Your task to perform on an android device: Open Youtube and go to the subscriptions tab Image 0: 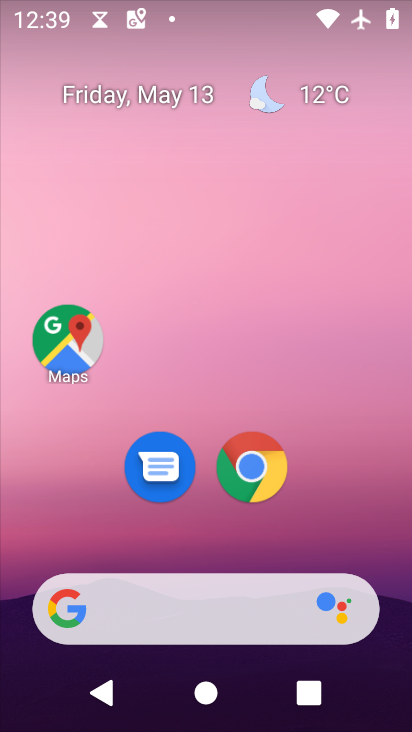
Step 0: drag from (250, 510) to (173, 34)
Your task to perform on an android device: Open Youtube and go to the subscriptions tab Image 1: 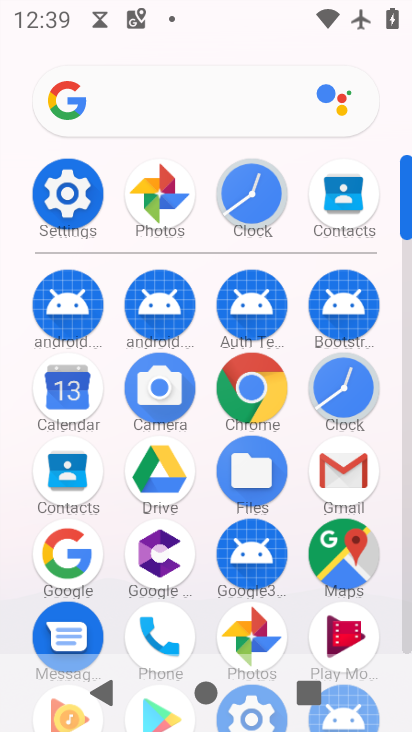
Step 1: drag from (203, 607) to (199, 296)
Your task to perform on an android device: Open Youtube and go to the subscriptions tab Image 2: 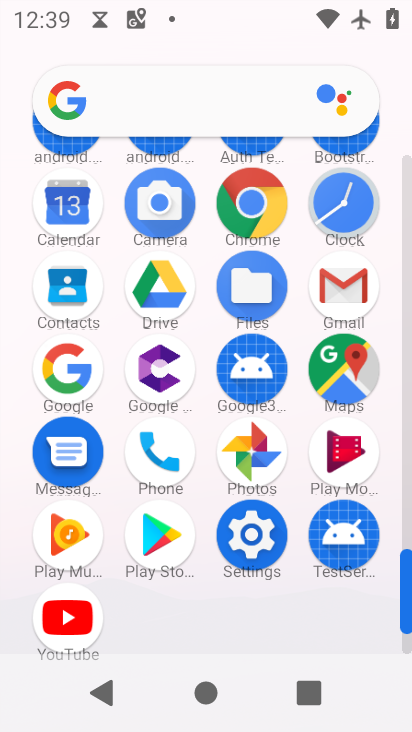
Step 2: click (75, 624)
Your task to perform on an android device: Open Youtube and go to the subscriptions tab Image 3: 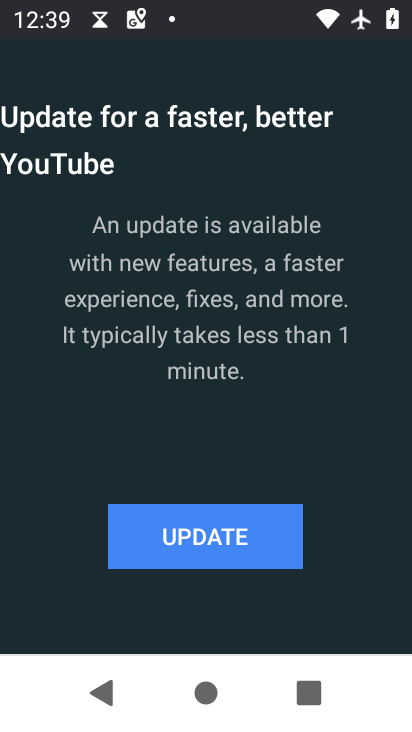
Step 3: click (231, 528)
Your task to perform on an android device: Open Youtube and go to the subscriptions tab Image 4: 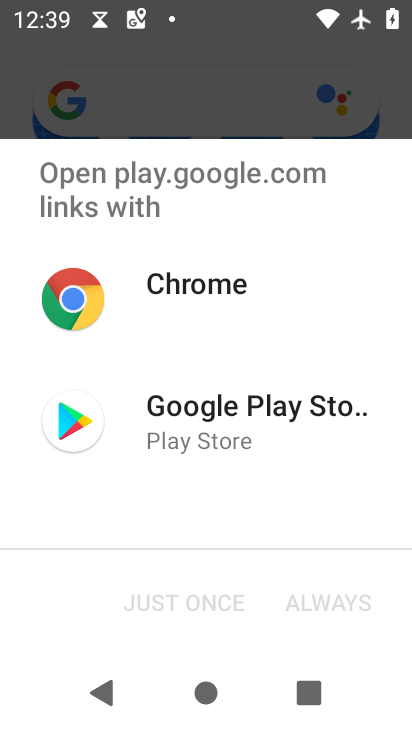
Step 4: click (194, 400)
Your task to perform on an android device: Open Youtube and go to the subscriptions tab Image 5: 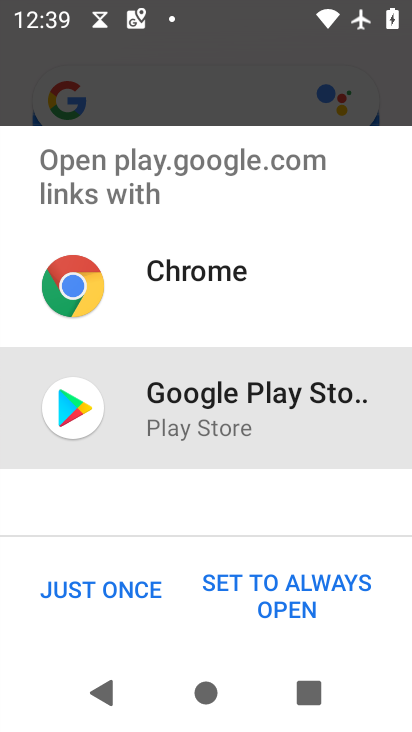
Step 5: click (117, 590)
Your task to perform on an android device: Open Youtube and go to the subscriptions tab Image 6: 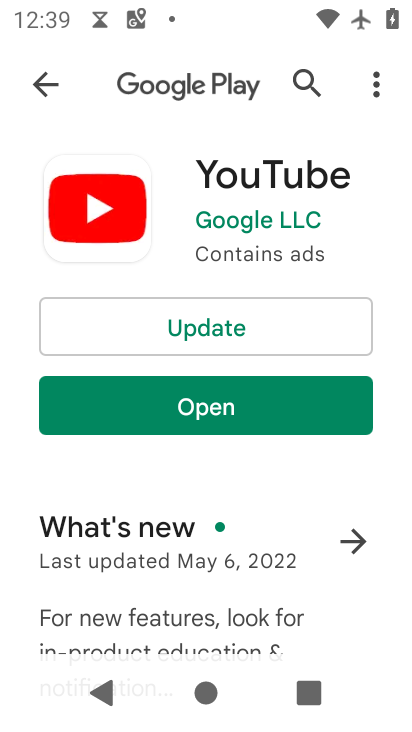
Step 6: click (250, 322)
Your task to perform on an android device: Open Youtube and go to the subscriptions tab Image 7: 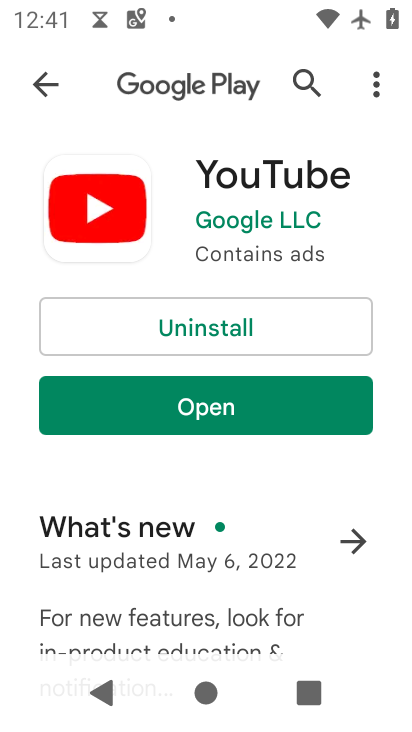
Step 7: click (307, 420)
Your task to perform on an android device: Open Youtube and go to the subscriptions tab Image 8: 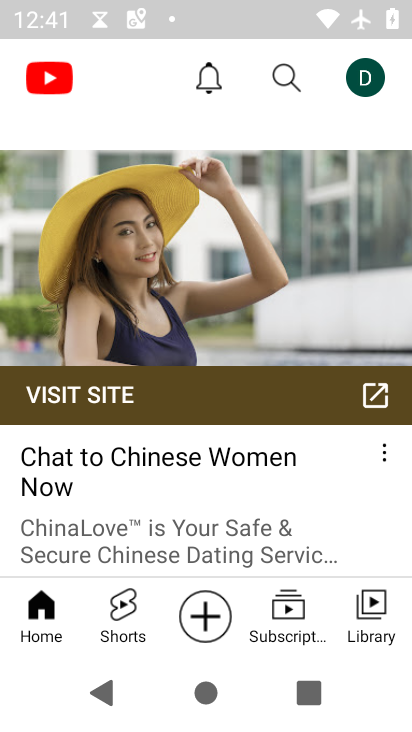
Step 8: click (278, 602)
Your task to perform on an android device: Open Youtube and go to the subscriptions tab Image 9: 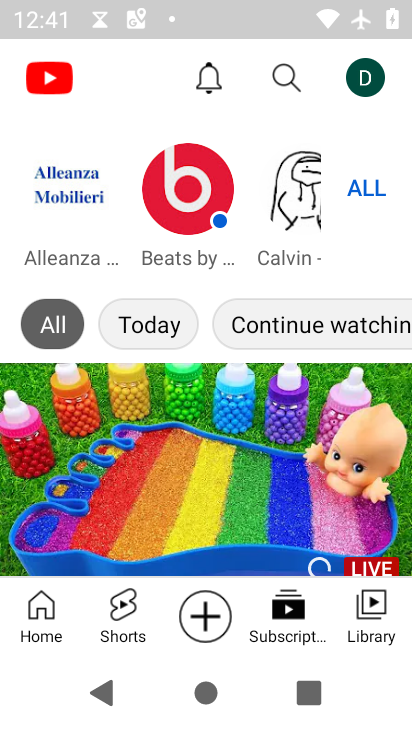
Step 9: task complete